Your task to perform on an android device: delete location history Image 0: 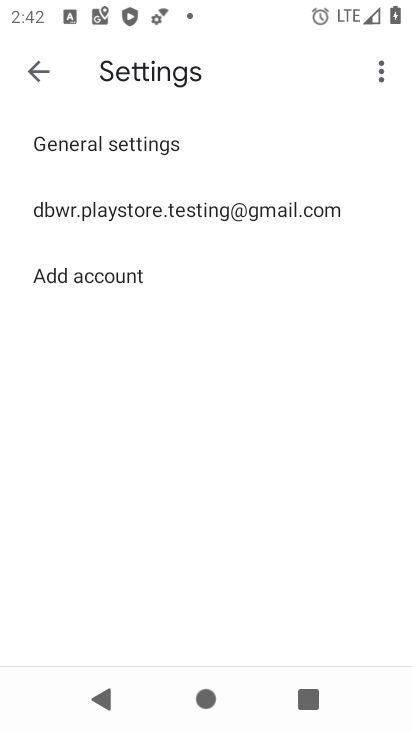
Step 0: press home button
Your task to perform on an android device: delete location history Image 1: 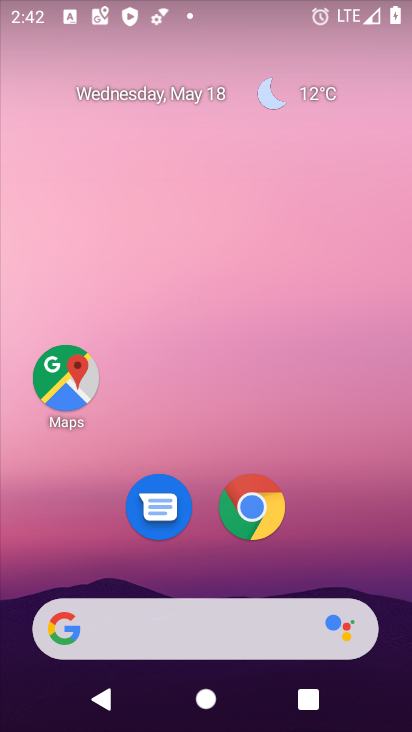
Step 1: click (61, 376)
Your task to perform on an android device: delete location history Image 2: 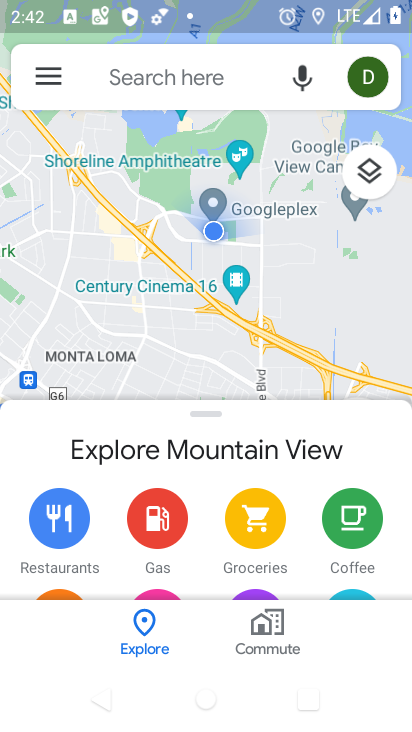
Step 2: click (42, 72)
Your task to perform on an android device: delete location history Image 3: 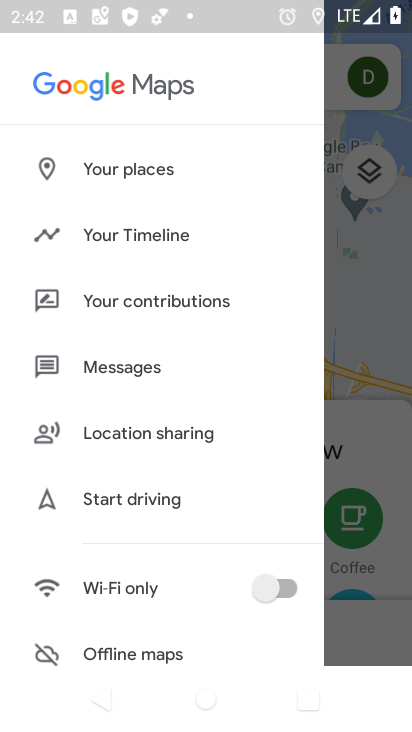
Step 3: drag from (235, 602) to (227, 114)
Your task to perform on an android device: delete location history Image 4: 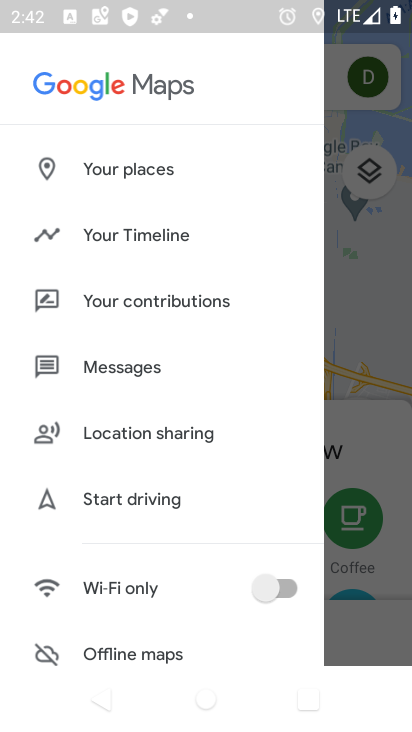
Step 4: drag from (218, 588) to (224, 217)
Your task to perform on an android device: delete location history Image 5: 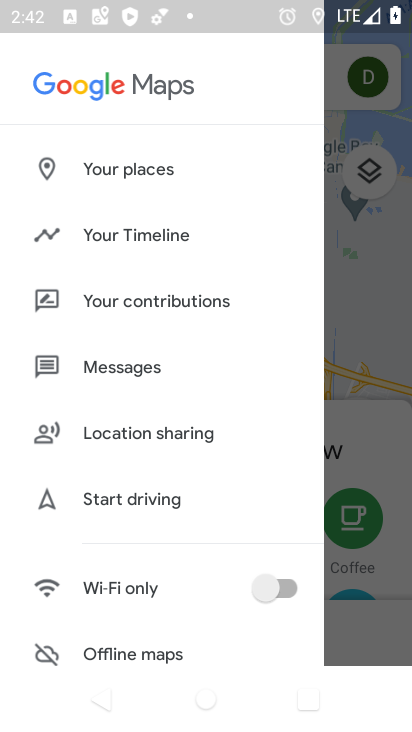
Step 5: drag from (220, 612) to (257, 216)
Your task to perform on an android device: delete location history Image 6: 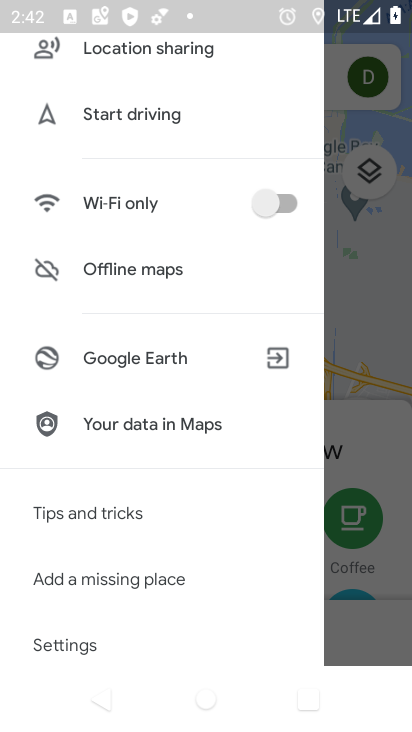
Step 6: click (68, 636)
Your task to perform on an android device: delete location history Image 7: 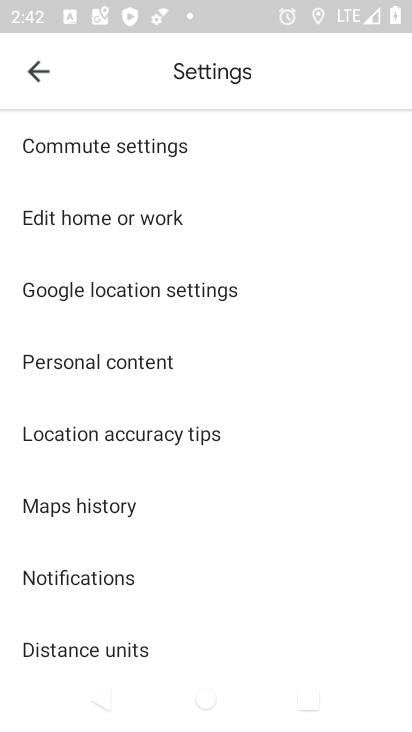
Step 7: click (66, 364)
Your task to perform on an android device: delete location history Image 8: 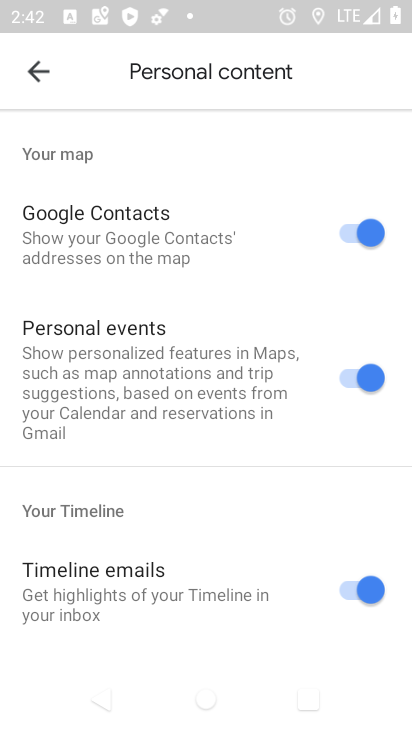
Step 8: drag from (267, 522) to (282, 146)
Your task to perform on an android device: delete location history Image 9: 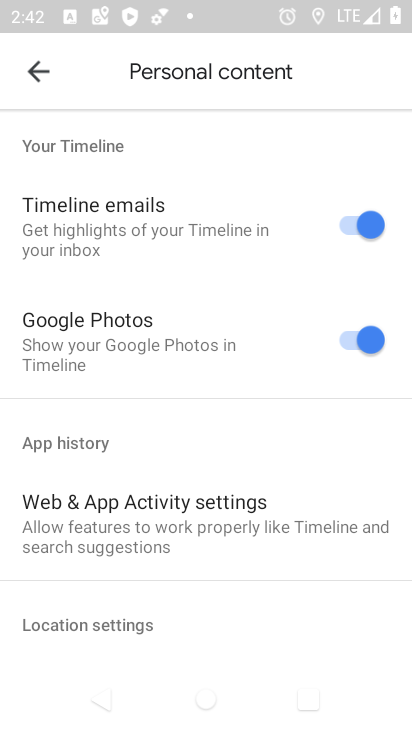
Step 9: drag from (276, 506) to (295, 151)
Your task to perform on an android device: delete location history Image 10: 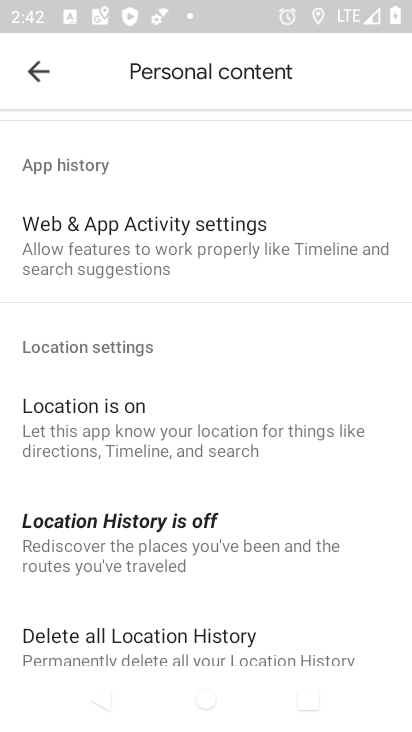
Step 10: drag from (222, 592) to (244, 294)
Your task to perform on an android device: delete location history Image 11: 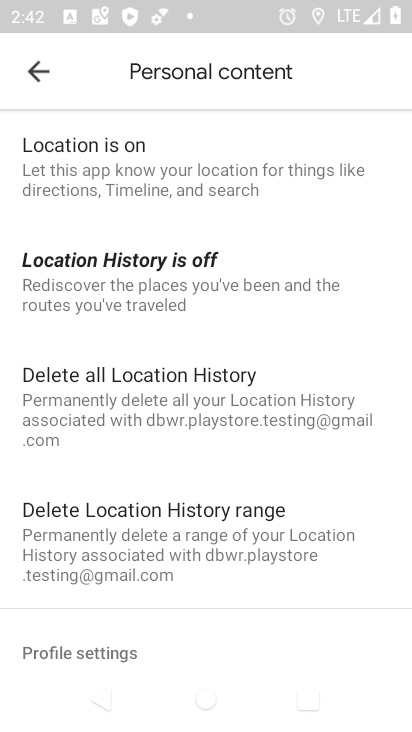
Step 11: click (87, 398)
Your task to perform on an android device: delete location history Image 12: 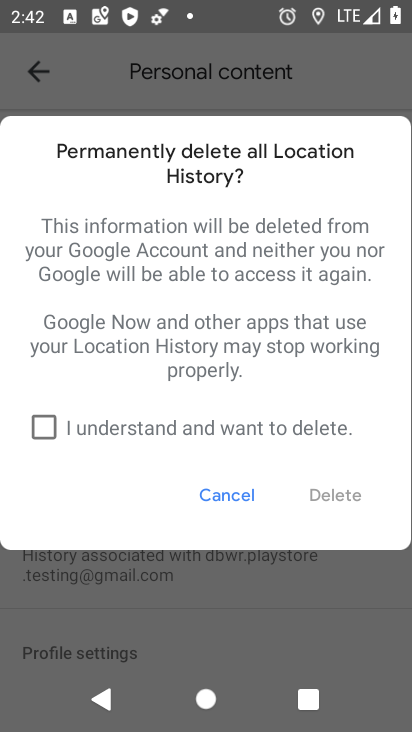
Step 12: click (25, 423)
Your task to perform on an android device: delete location history Image 13: 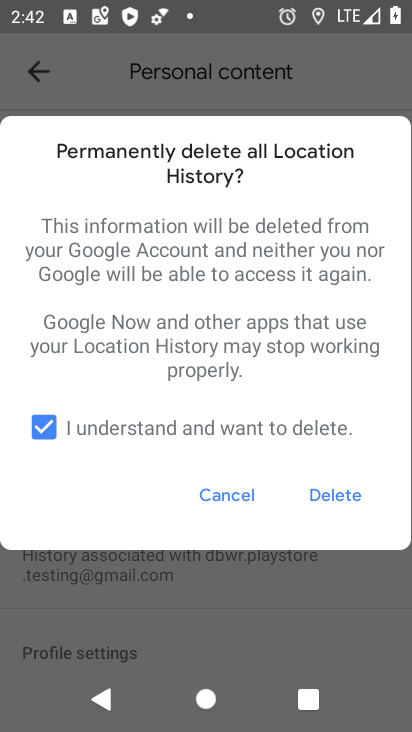
Step 13: click (333, 494)
Your task to perform on an android device: delete location history Image 14: 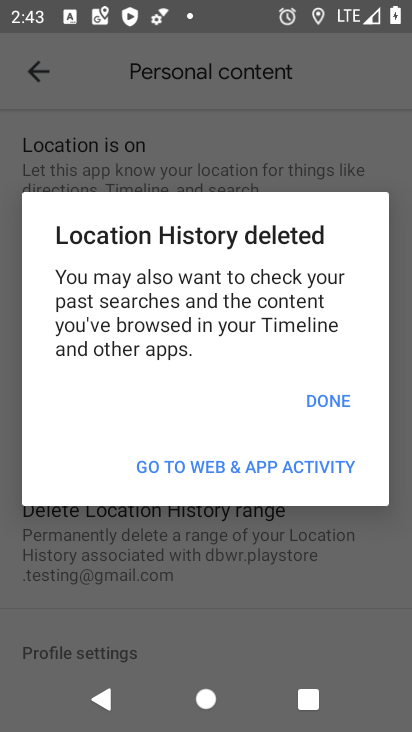
Step 14: click (320, 400)
Your task to perform on an android device: delete location history Image 15: 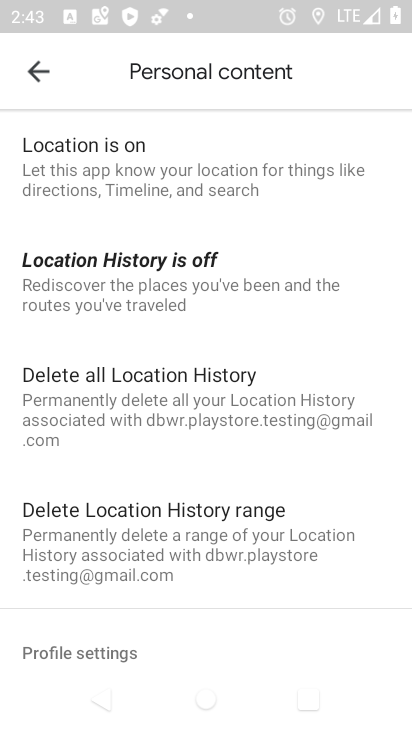
Step 15: task complete